Your task to perform on an android device: toggle pop-ups in chrome Image 0: 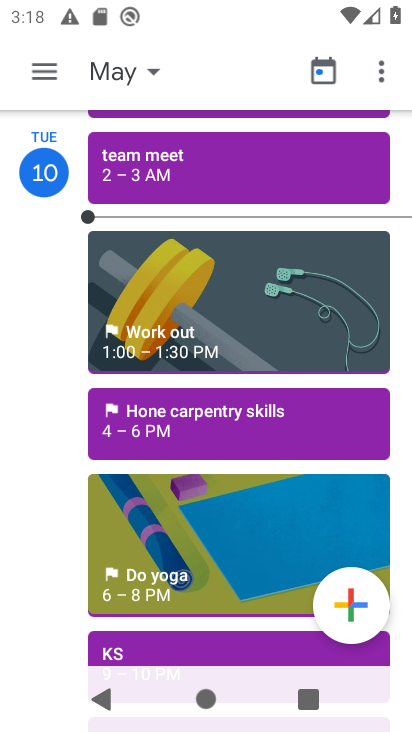
Step 0: press back button
Your task to perform on an android device: toggle pop-ups in chrome Image 1: 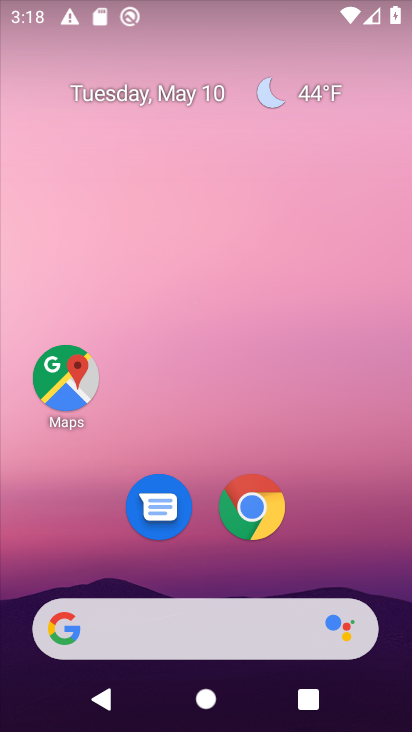
Step 1: click (249, 513)
Your task to perform on an android device: toggle pop-ups in chrome Image 2: 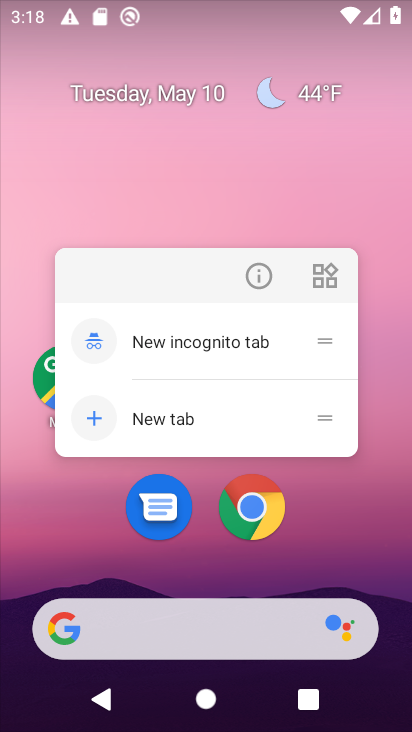
Step 2: click (256, 521)
Your task to perform on an android device: toggle pop-ups in chrome Image 3: 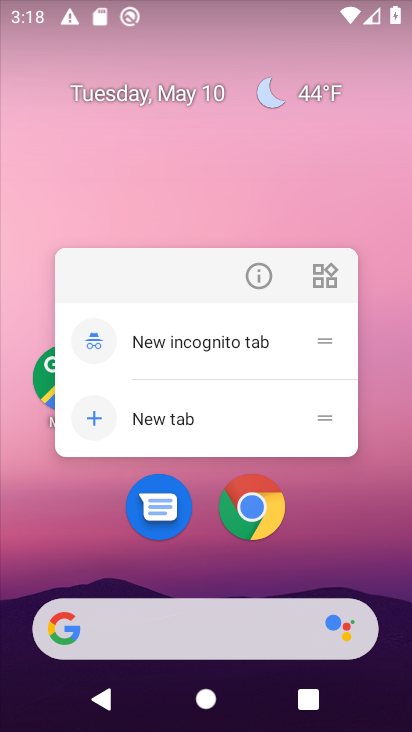
Step 3: click (265, 519)
Your task to perform on an android device: toggle pop-ups in chrome Image 4: 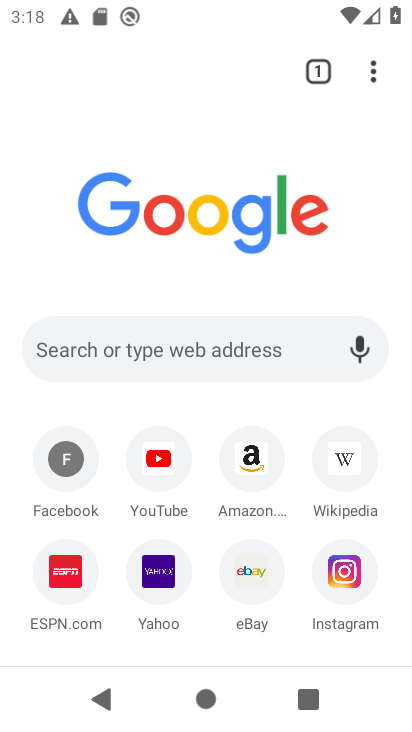
Step 4: drag from (379, 89) to (243, 512)
Your task to perform on an android device: toggle pop-ups in chrome Image 5: 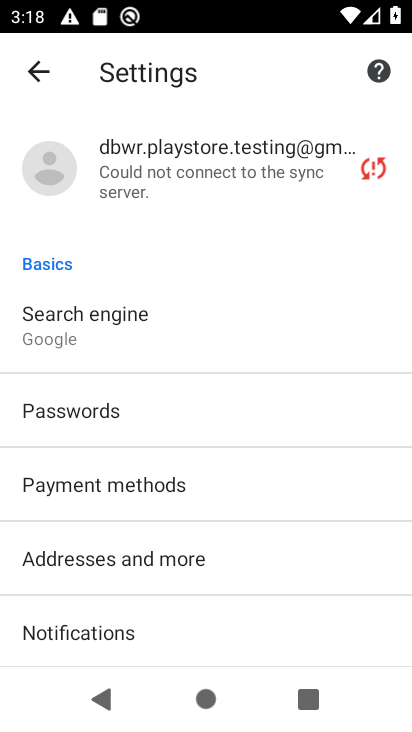
Step 5: drag from (216, 550) to (317, 212)
Your task to perform on an android device: toggle pop-ups in chrome Image 6: 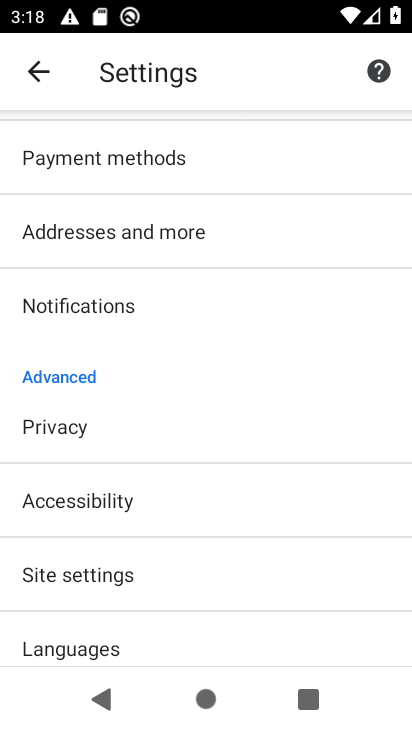
Step 6: click (182, 584)
Your task to perform on an android device: toggle pop-ups in chrome Image 7: 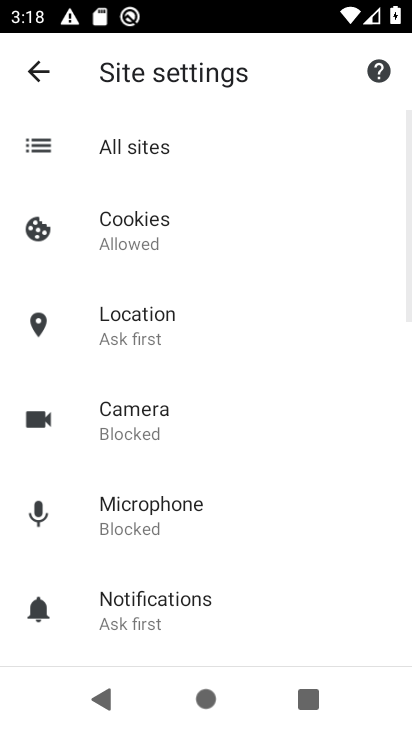
Step 7: drag from (175, 632) to (270, 260)
Your task to perform on an android device: toggle pop-ups in chrome Image 8: 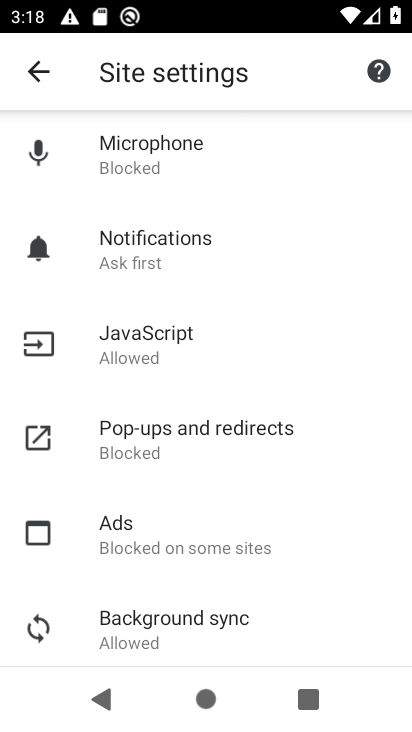
Step 8: click (238, 445)
Your task to perform on an android device: toggle pop-ups in chrome Image 9: 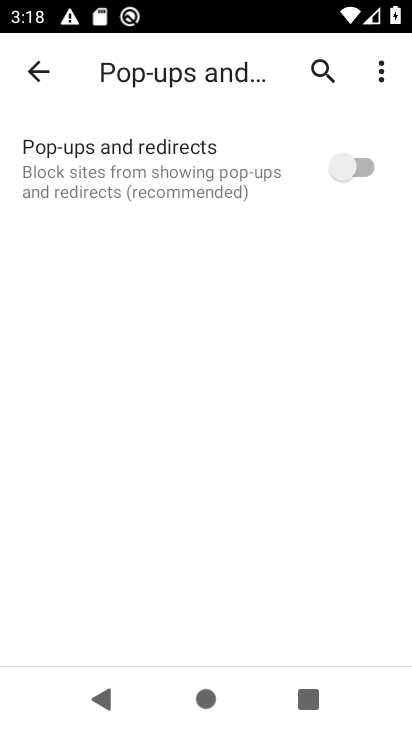
Step 9: click (390, 171)
Your task to perform on an android device: toggle pop-ups in chrome Image 10: 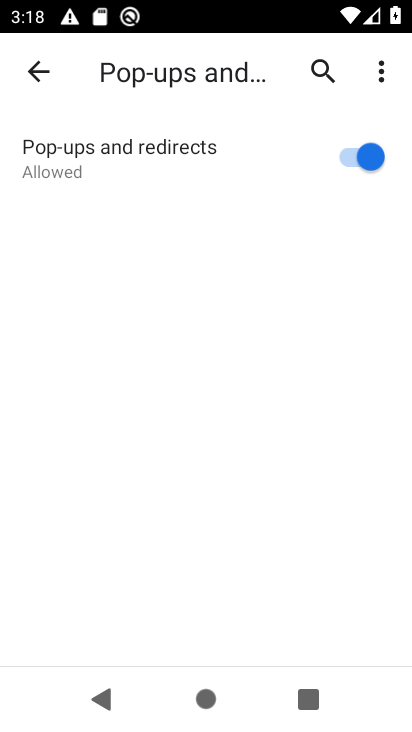
Step 10: task complete